Your task to perform on an android device: search for starred emails in the gmail app Image 0: 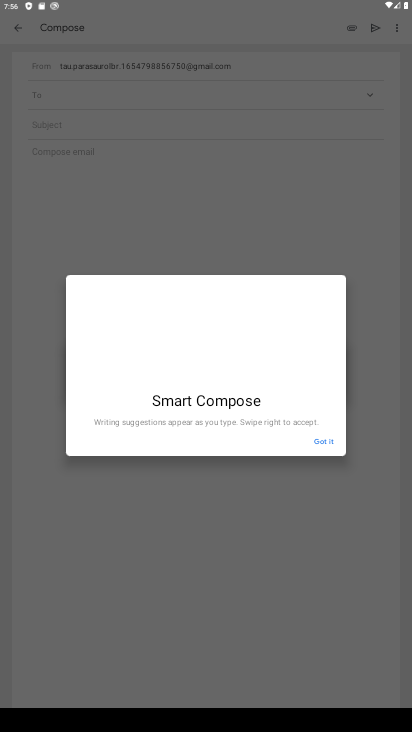
Step 0: click (318, 441)
Your task to perform on an android device: search for starred emails in the gmail app Image 1: 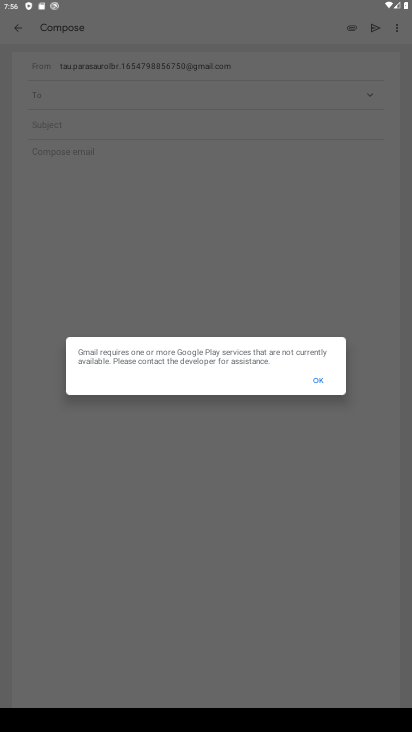
Step 1: click (321, 380)
Your task to perform on an android device: search for starred emails in the gmail app Image 2: 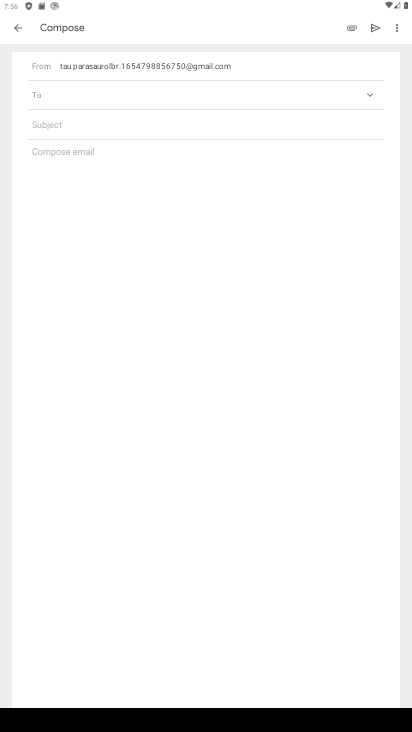
Step 2: click (19, 32)
Your task to perform on an android device: search for starred emails in the gmail app Image 3: 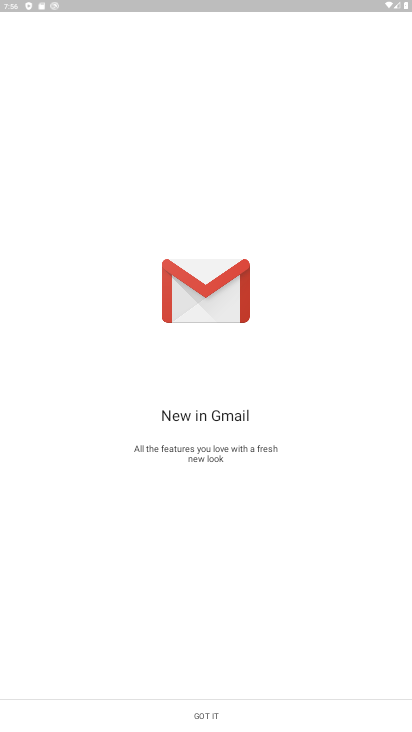
Step 3: click (192, 717)
Your task to perform on an android device: search for starred emails in the gmail app Image 4: 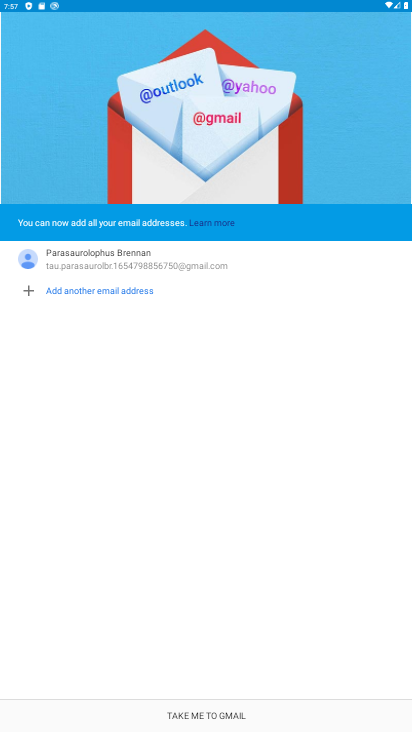
Step 4: click (224, 716)
Your task to perform on an android device: search for starred emails in the gmail app Image 5: 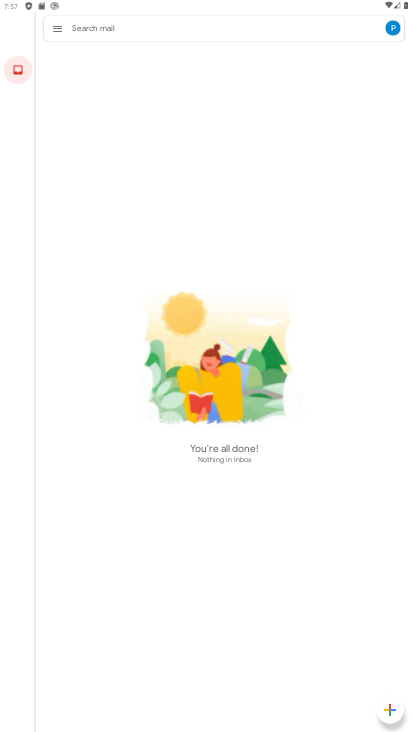
Step 5: click (56, 25)
Your task to perform on an android device: search for starred emails in the gmail app Image 6: 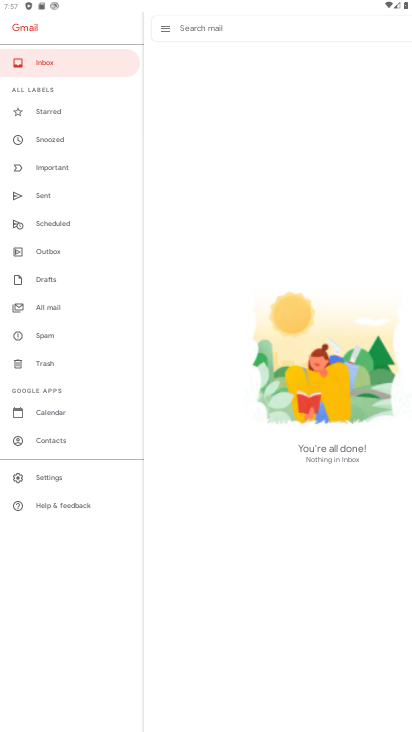
Step 6: click (71, 115)
Your task to perform on an android device: search for starred emails in the gmail app Image 7: 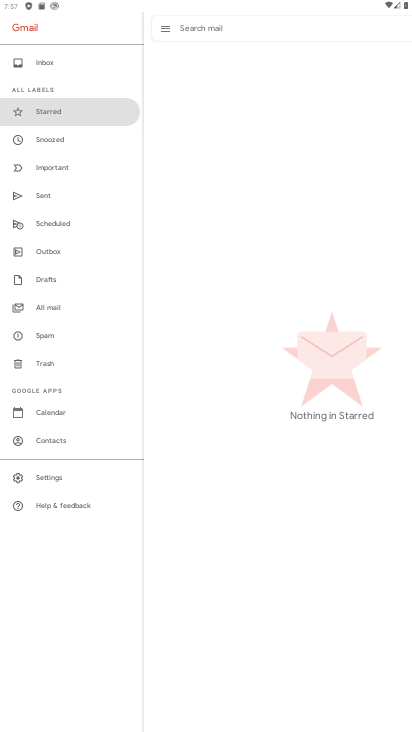
Step 7: task complete